Your task to perform on an android device: Is it going to rain this weekend? Image 0: 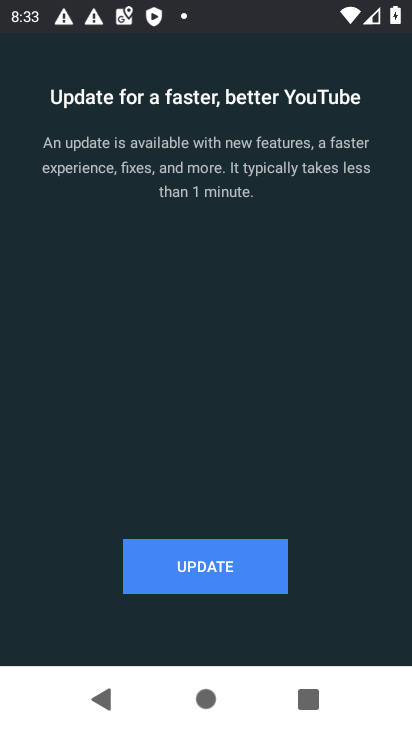
Step 0: press home button
Your task to perform on an android device: Is it going to rain this weekend? Image 1: 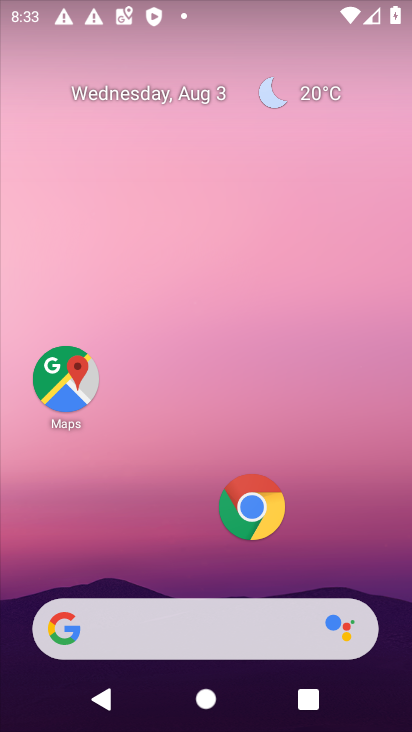
Step 1: click (191, 612)
Your task to perform on an android device: Is it going to rain this weekend? Image 2: 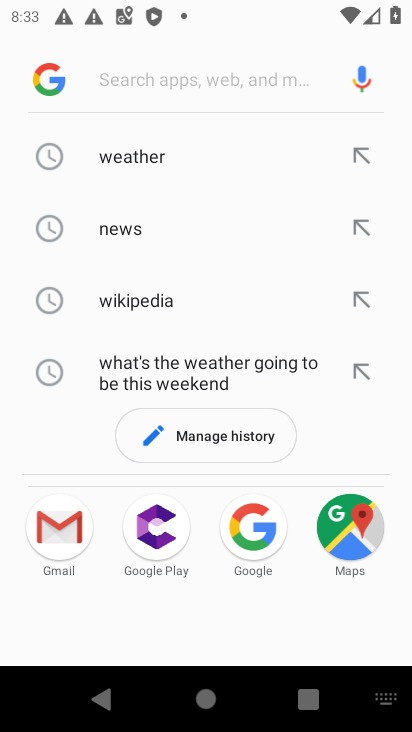
Step 2: click (145, 168)
Your task to perform on an android device: Is it going to rain this weekend? Image 3: 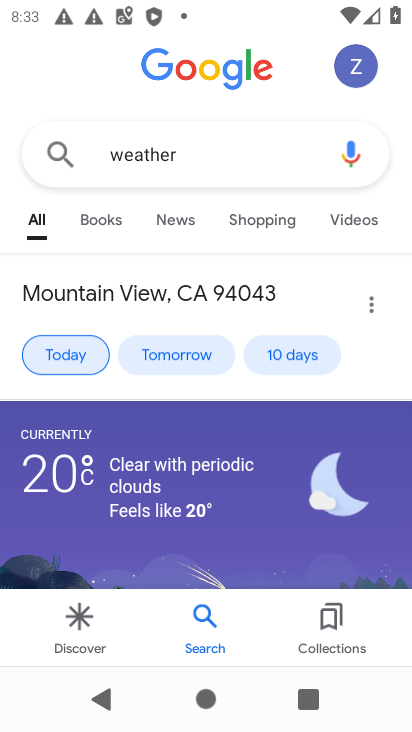
Step 3: click (287, 362)
Your task to perform on an android device: Is it going to rain this weekend? Image 4: 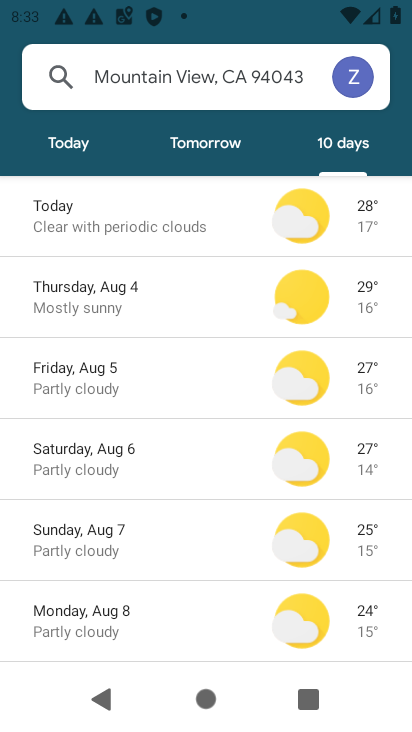
Step 4: task complete